Your task to perform on an android device: Open internet settings Image 0: 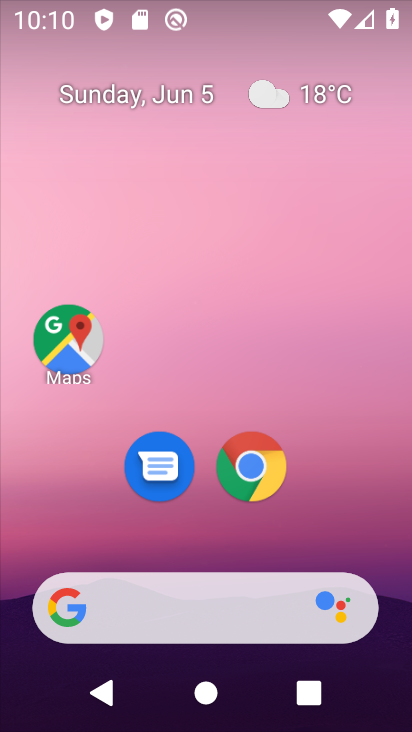
Step 0: drag from (325, 505) to (238, 0)
Your task to perform on an android device: Open internet settings Image 1: 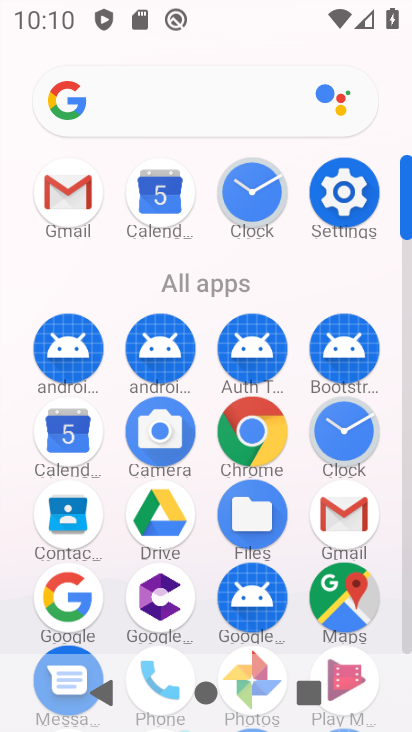
Step 1: click (344, 192)
Your task to perform on an android device: Open internet settings Image 2: 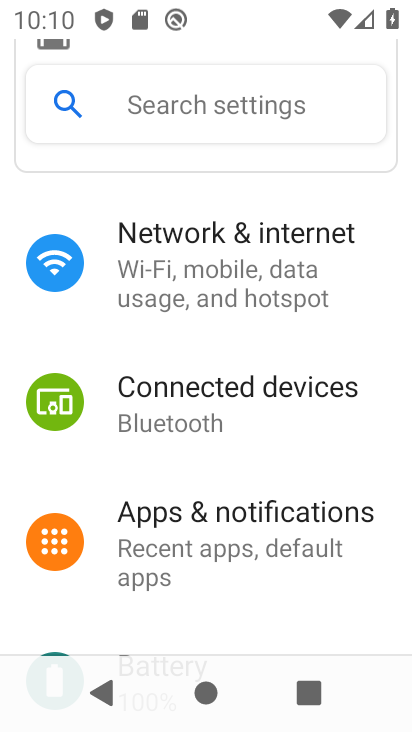
Step 2: drag from (191, 357) to (219, 223)
Your task to perform on an android device: Open internet settings Image 3: 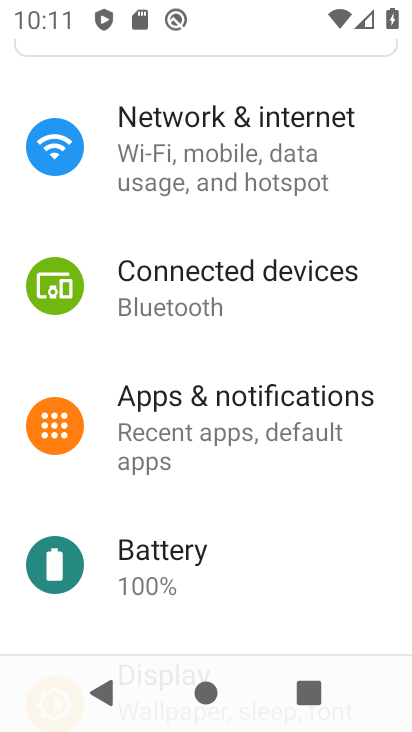
Step 3: click (272, 112)
Your task to perform on an android device: Open internet settings Image 4: 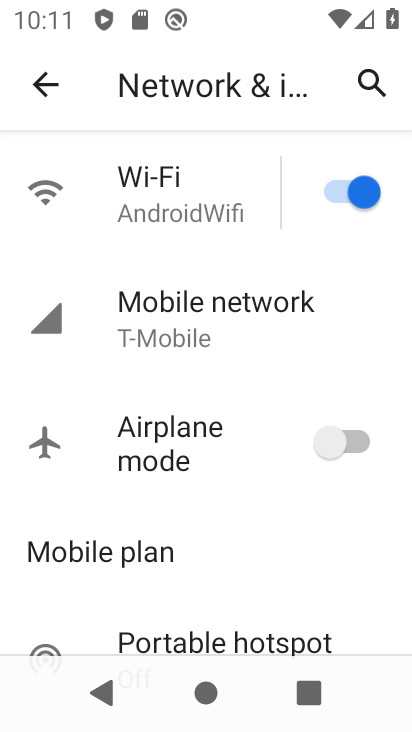
Step 4: click (159, 200)
Your task to perform on an android device: Open internet settings Image 5: 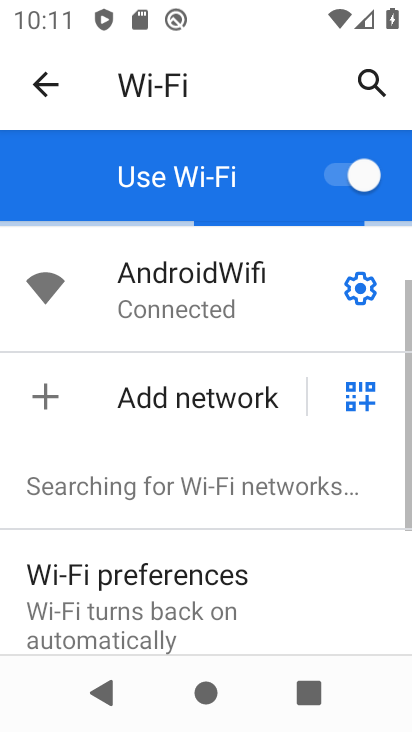
Step 5: task complete